Your task to perform on an android device: Open Google Maps Image 0: 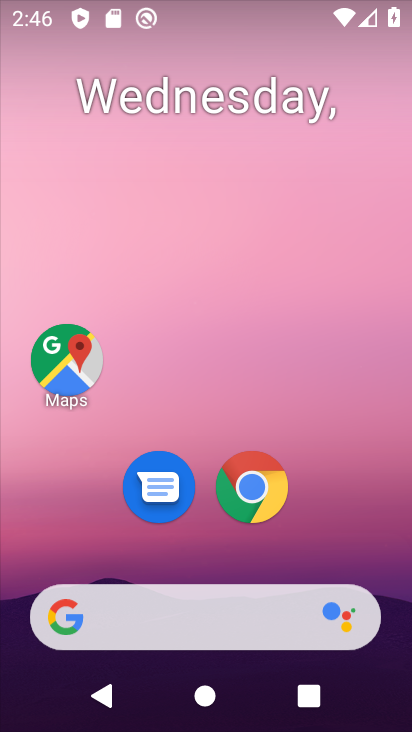
Step 0: drag from (372, 531) to (361, 77)
Your task to perform on an android device: Open Google Maps Image 1: 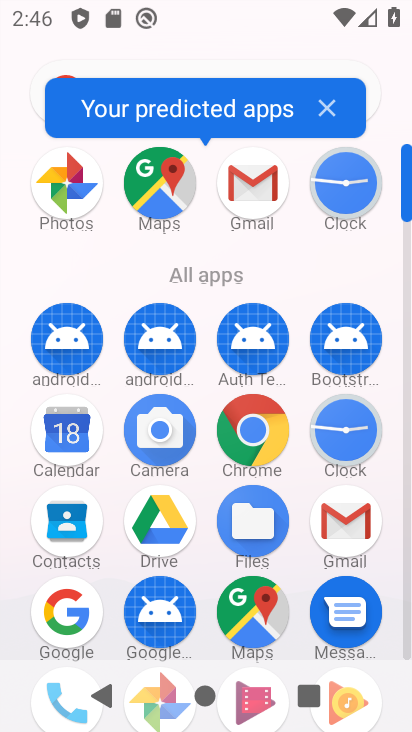
Step 1: drag from (390, 543) to (388, 311)
Your task to perform on an android device: Open Google Maps Image 2: 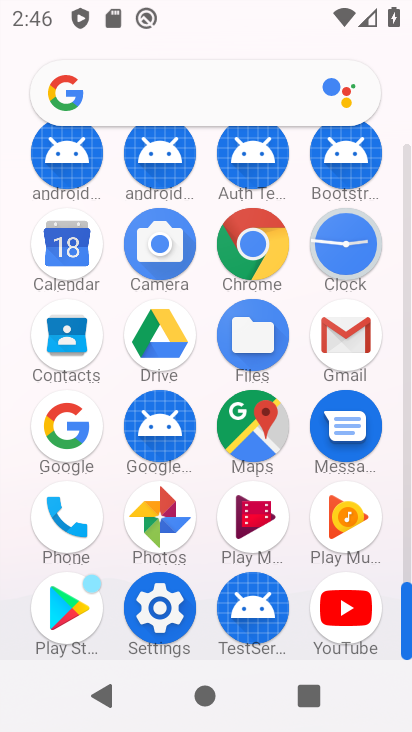
Step 2: click (249, 420)
Your task to perform on an android device: Open Google Maps Image 3: 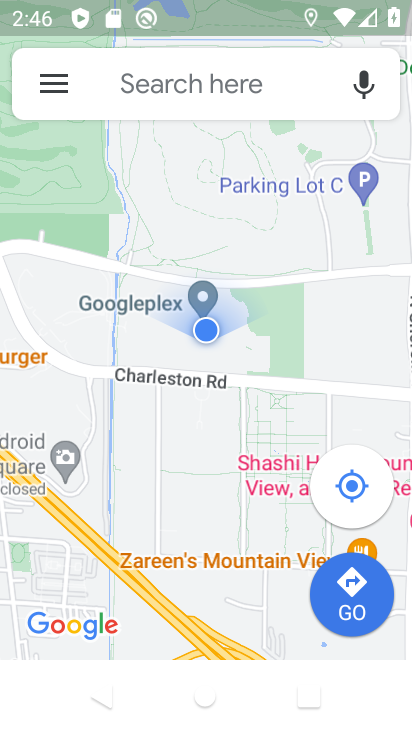
Step 3: task complete